Your task to perform on an android device: Go to eBay Image 0: 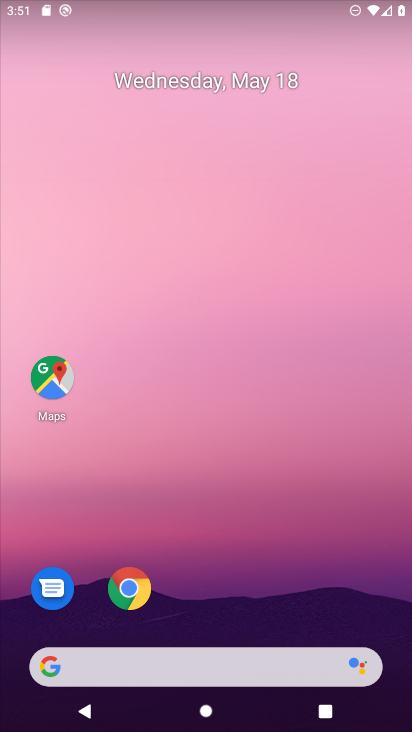
Step 0: click (126, 586)
Your task to perform on an android device: Go to eBay Image 1: 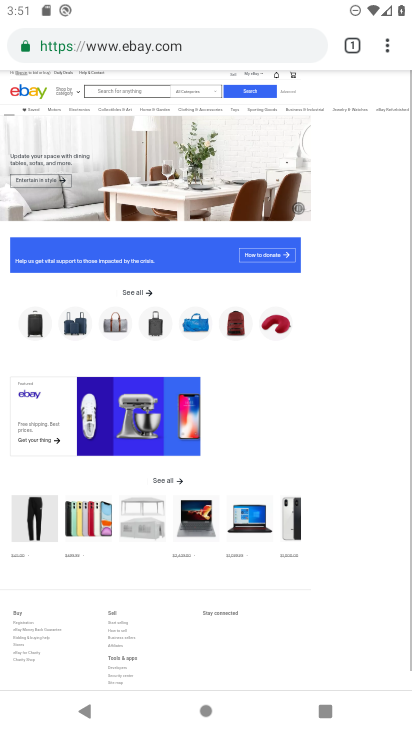
Step 1: click (213, 41)
Your task to perform on an android device: Go to eBay Image 2: 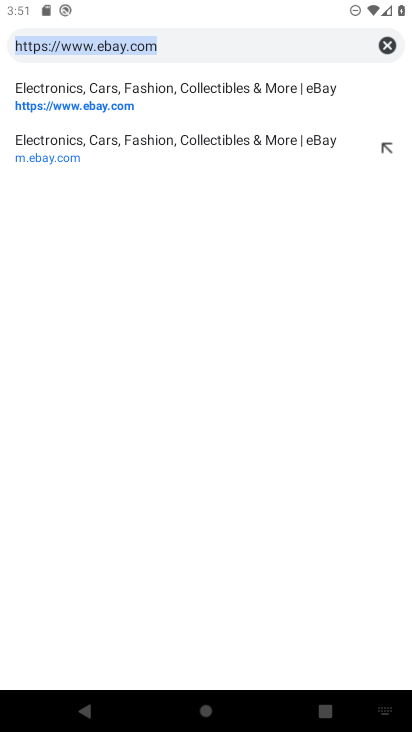
Step 2: click (239, 101)
Your task to perform on an android device: Go to eBay Image 3: 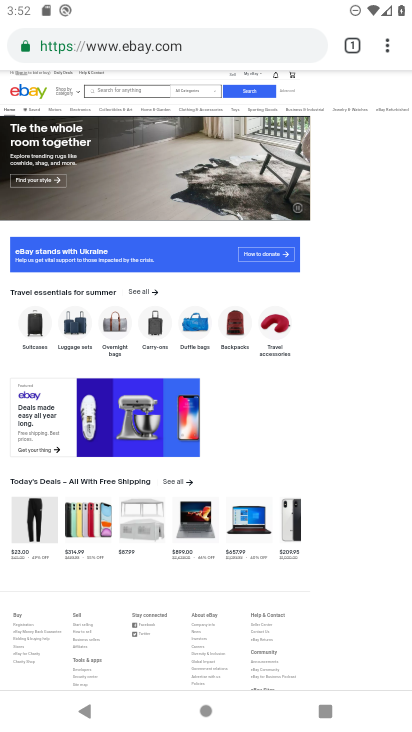
Step 3: task complete